Your task to perform on an android device: View the shopping cart on newegg. Add "alienware area 51" to the cart on newegg Image 0: 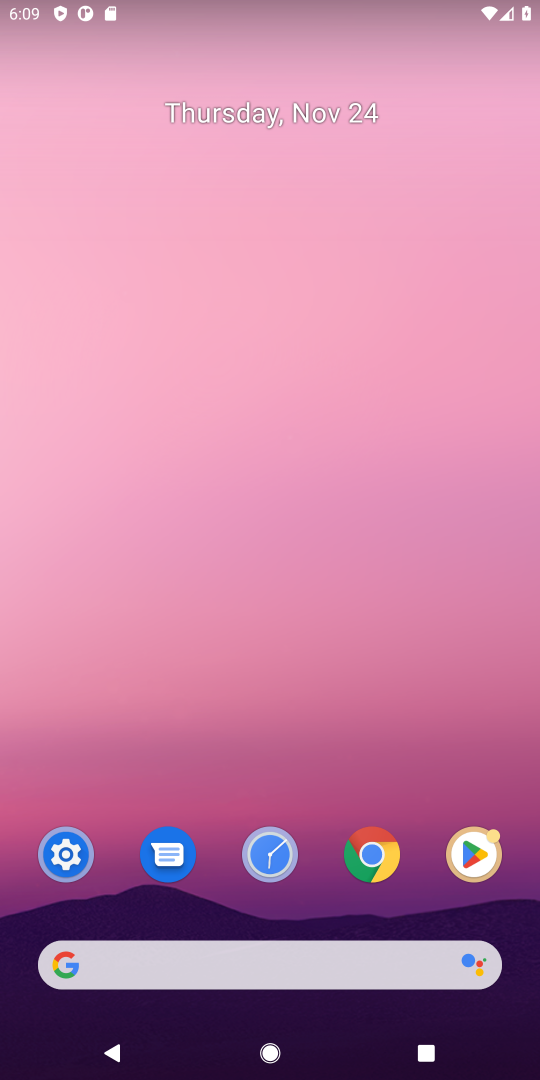
Step 0: click (368, 858)
Your task to perform on an android device: View the shopping cart on newegg. Add "alienware area 51" to the cart on newegg Image 1: 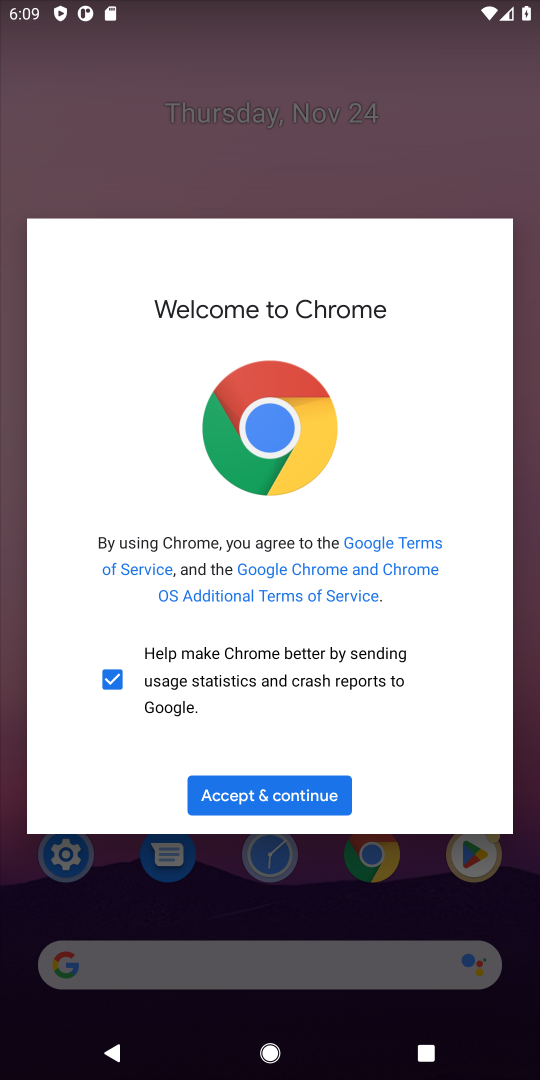
Step 1: click (273, 799)
Your task to perform on an android device: View the shopping cart on newegg. Add "alienware area 51" to the cart on newegg Image 2: 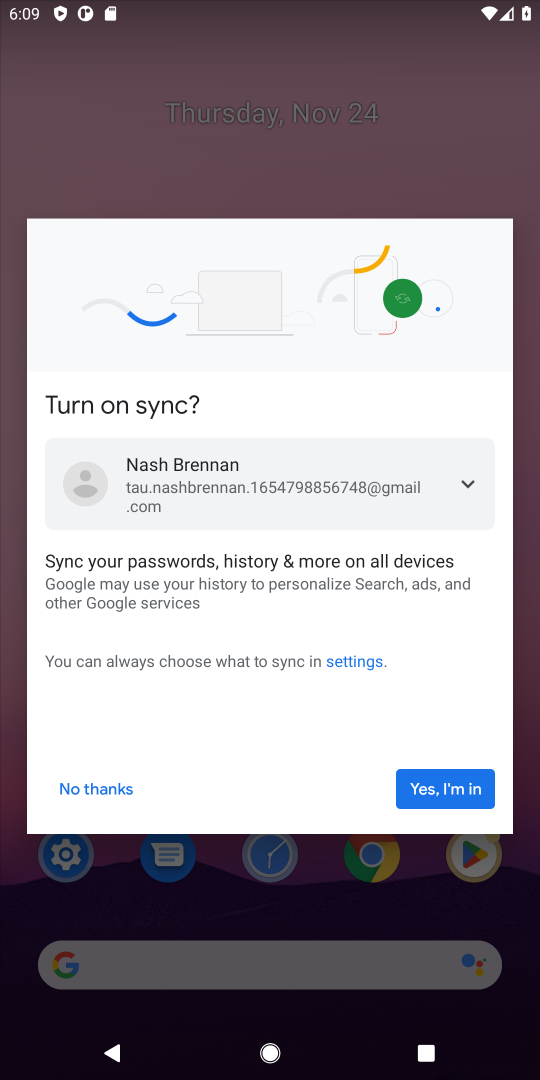
Step 2: click (95, 794)
Your task to perform on an android device: View the shopping cart on newegg. Add "alienware area 51" to the cart on newegg Image 3: 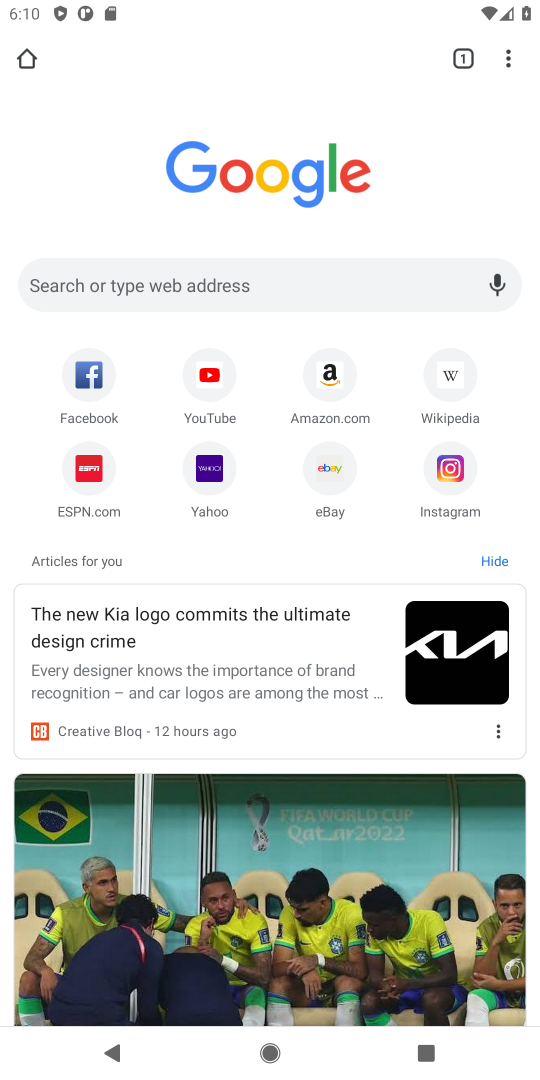
Step 3: click (75, 281)
Your task to perform on an android device: View the shopping cart on newegg. Add "alienware area 51" to the cart on newegg Image 4: 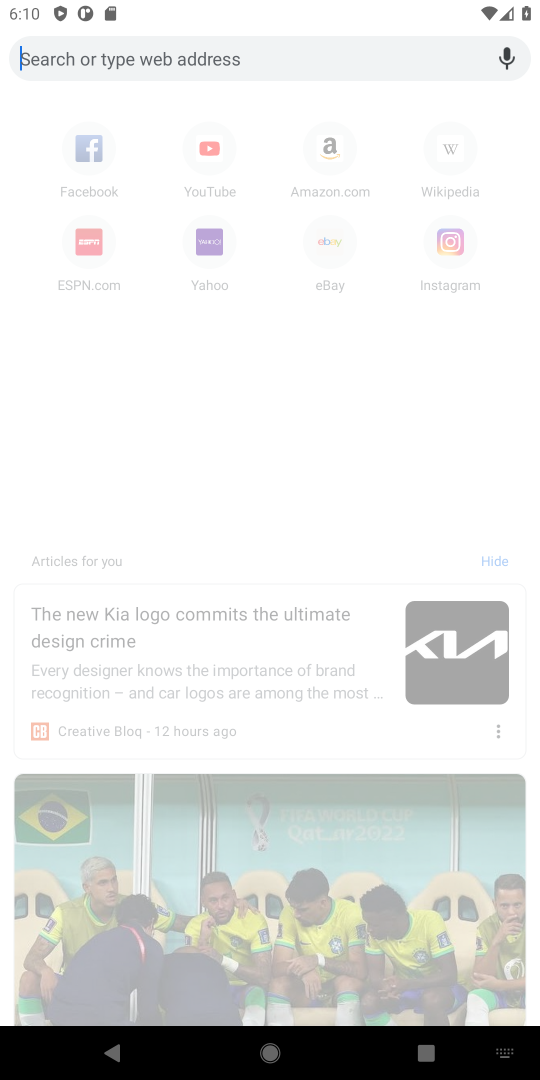
Step 4: type "newegg.com"
Your task to perform on an android device: View the shopping cart on newegg. Add "alienware area 51" to the cart on newegg Image 5: 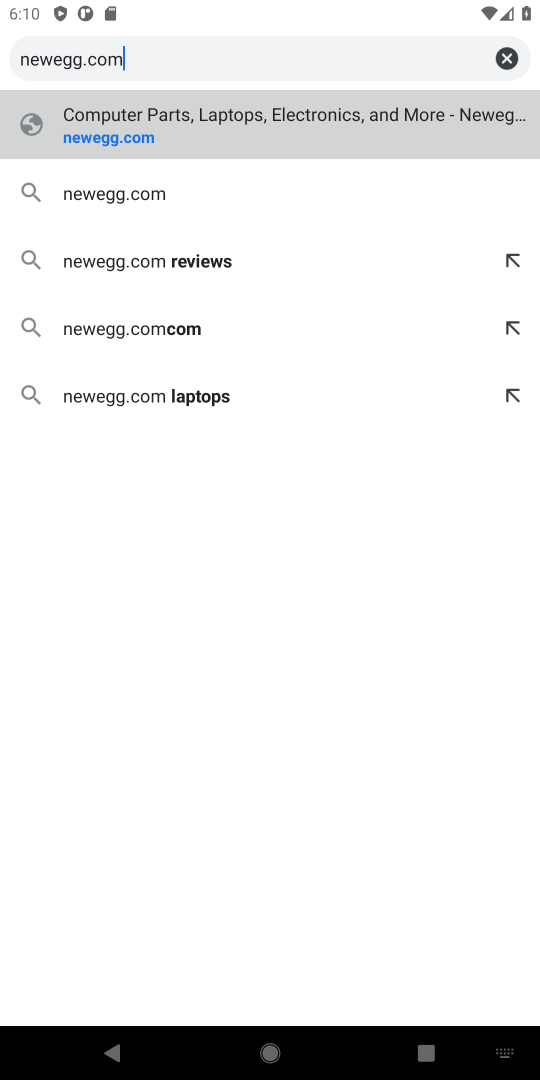
Step 5: click (101, 125)
Your task to perform on an android device: View the shopping cart on newegg. Add "alienware area 51" to the cart on newegg Image 6: 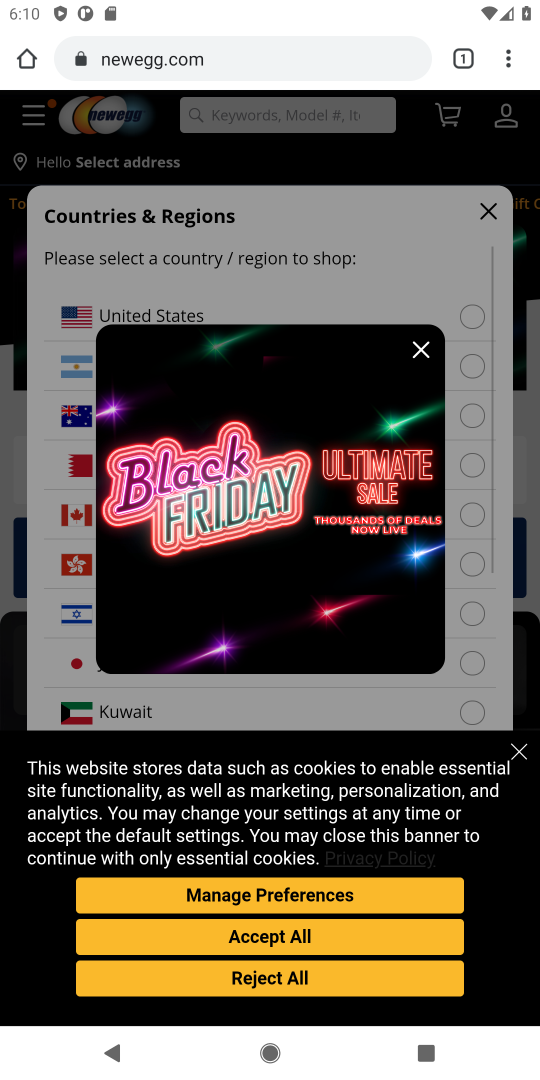
Step 6: click (517, 752)
Your task to perform on an android device: View the shopping cart on newegg. Add "alienware area 51" to the cart on newegg Image 7: 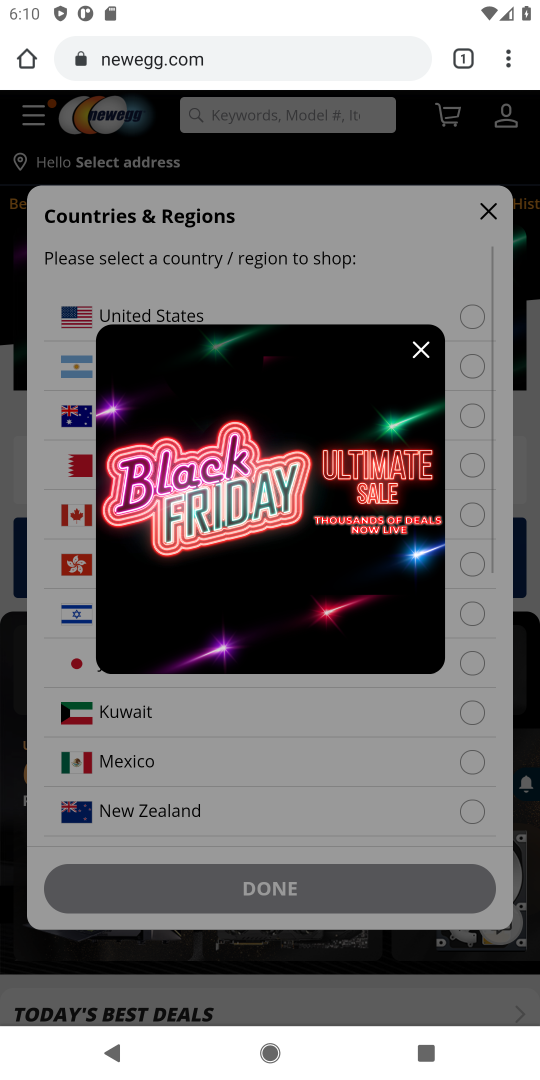
Step 7: click (423, 353)
Your task to perform on an android device: View the shopping cart on newegg. Add "alienware area 51" to the cart on newegg Image 8: 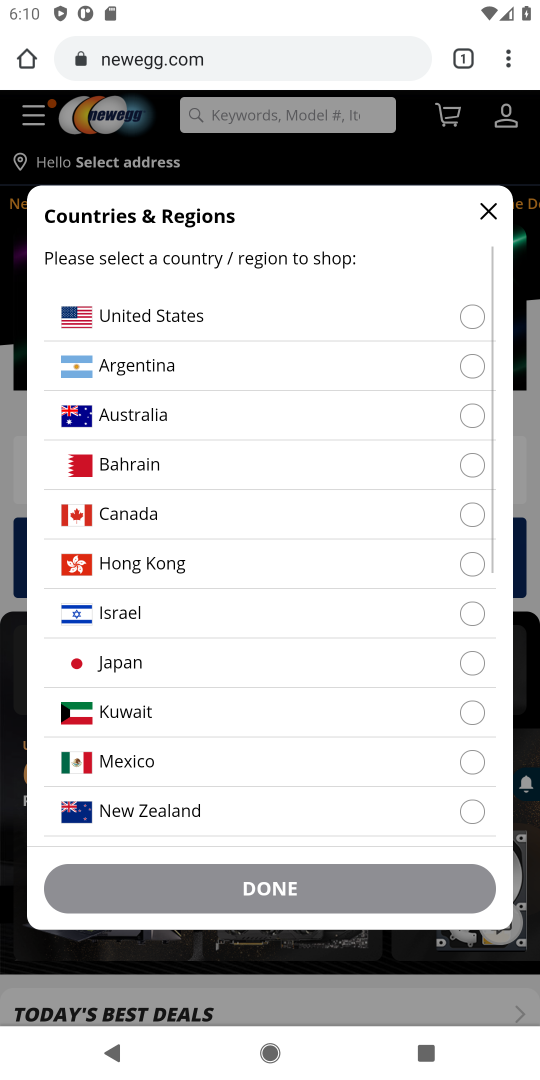
Step 8: click (483, 217)
Your task to perform on an android device: View the shopping cart on newegg. Add "alienware area 51" to the cart on newegg Image 9: 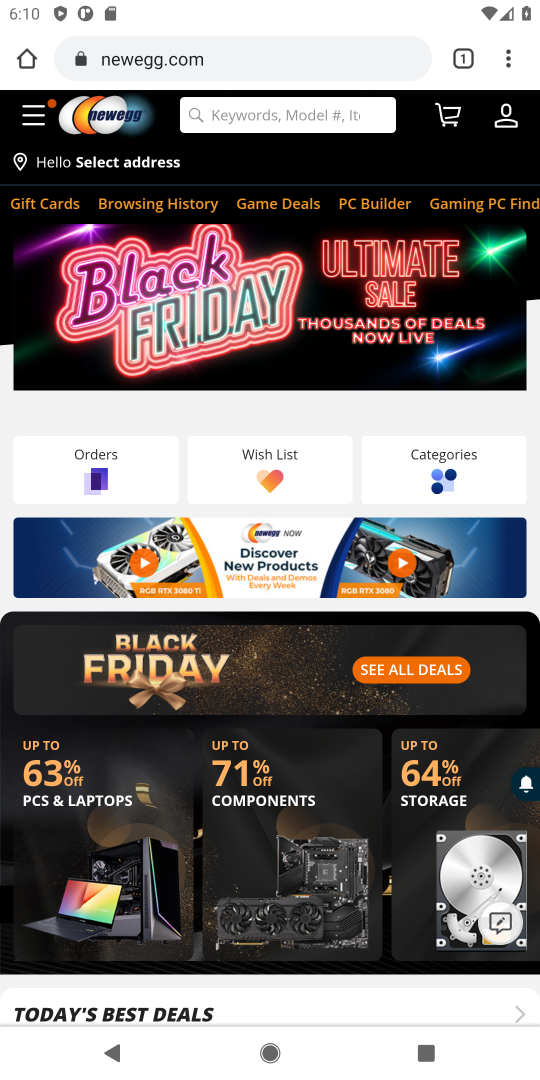
Step 9: click (261, 109)
Your task to perform on an android device: View the shopping cart on newegg. Add "alienware area 51" to the cart on newegg Image 10: 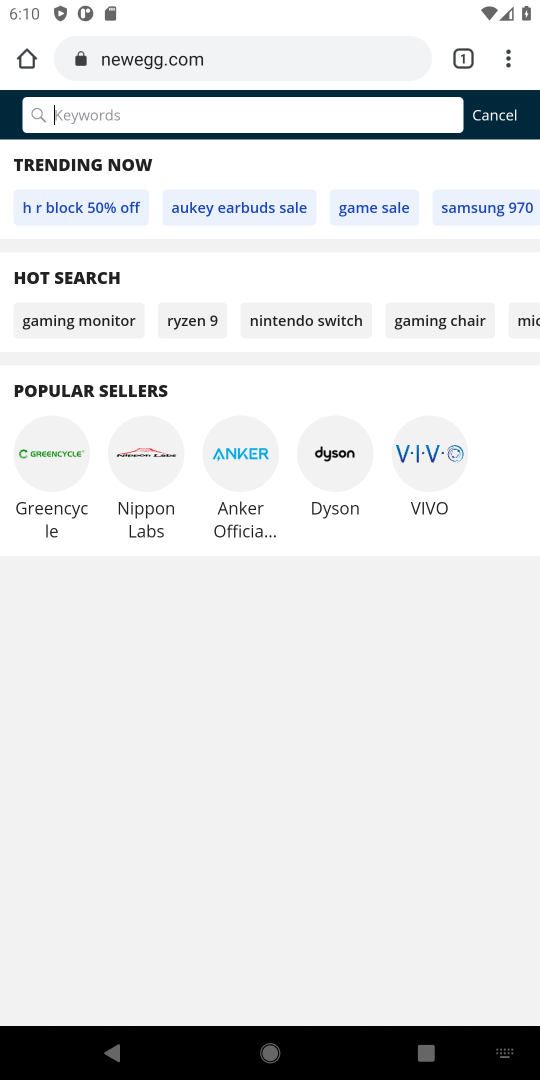
Step 10: click (486, 121)
Your task to perform on an android device: View the shopping cart on newegg. Add "alienware area 51" to the cart on newegg Image 11: 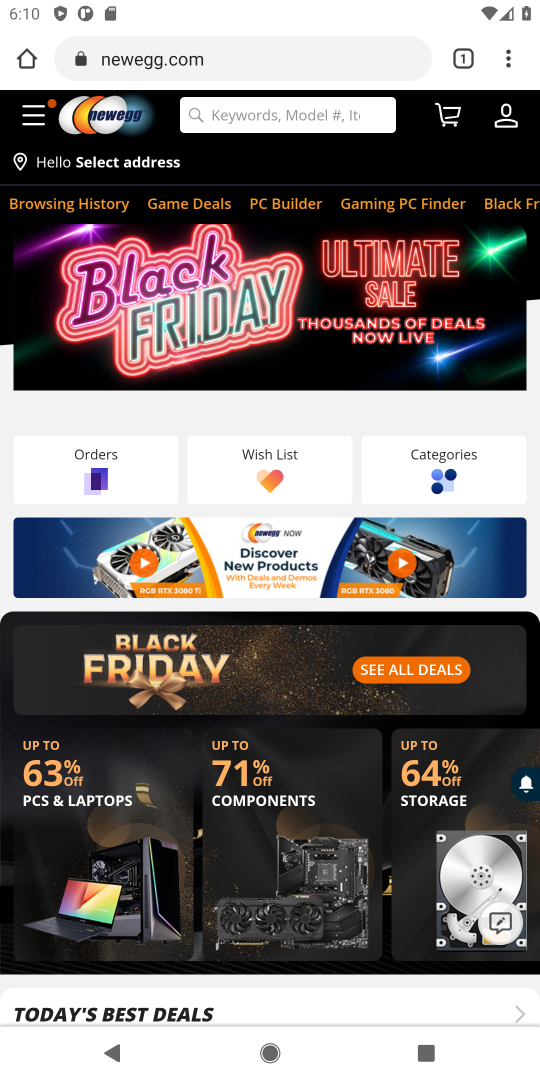
Step 11: click (453, 118)
Your task to perform on an android device: View the shopping cart on newegg. Add "alienware area 51" to the cart on newegg Image 12: 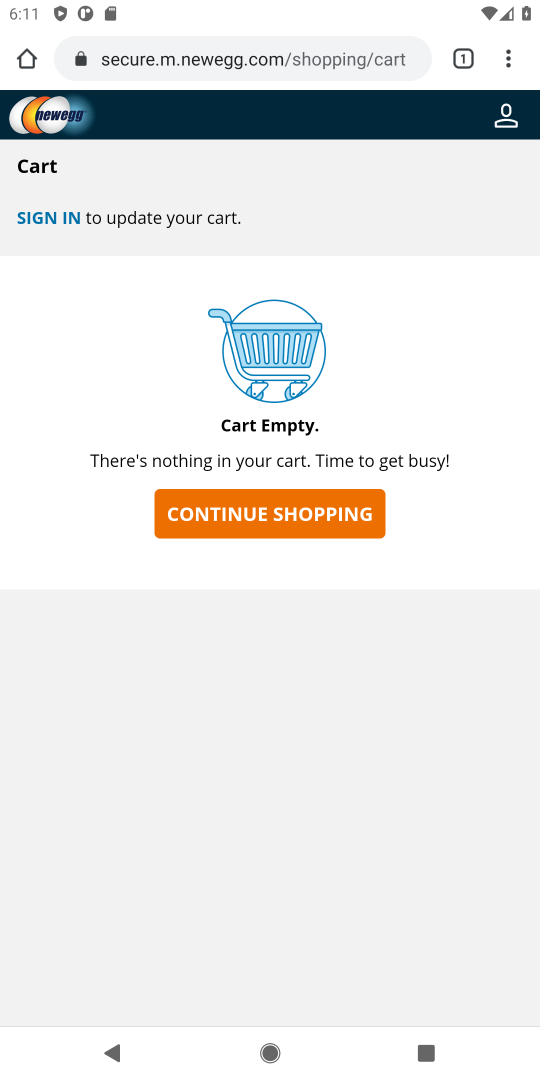
Step 12: click (261, 520)
Your task to perform on an android device: View the shopping cart on newegg. Add "alienware area 51" to the cart on newegg Image 13: 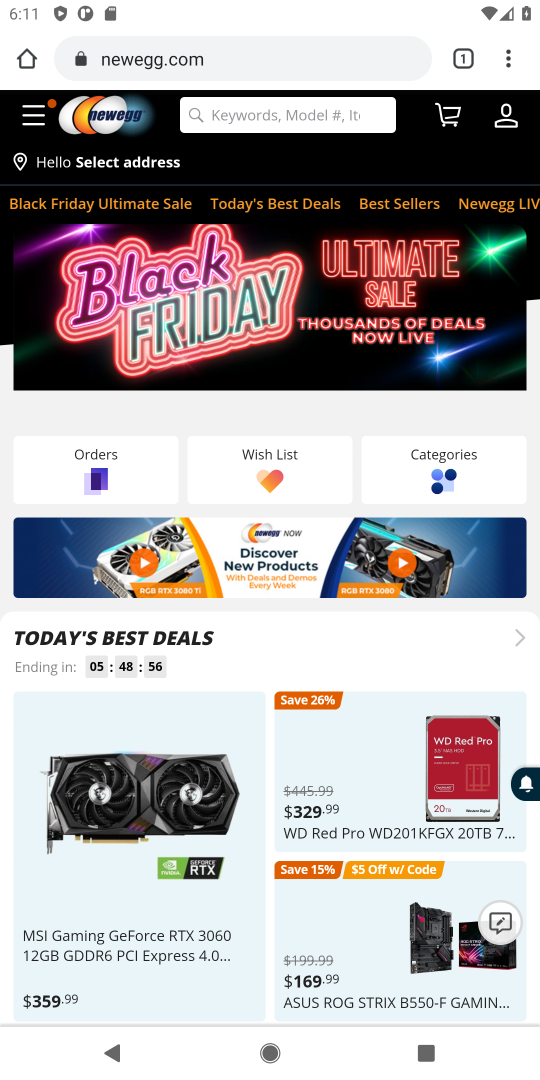
Step 13: click (230, 105)
Your task to perform on an android device: View the shopping cart on newegg. Add "alienware area 51" to the cart on newegg Image 14: 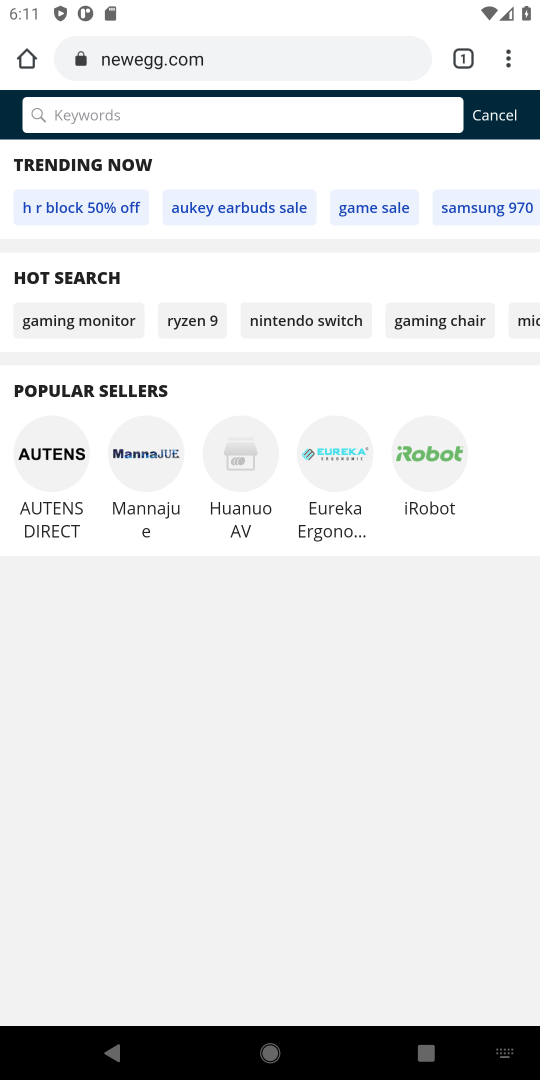
Step 14: type "alienware area 51"
Your task to perform on an android device: View the shopping cart on newegg. Add "alienware area 51" to the cart on newegg Image 15: 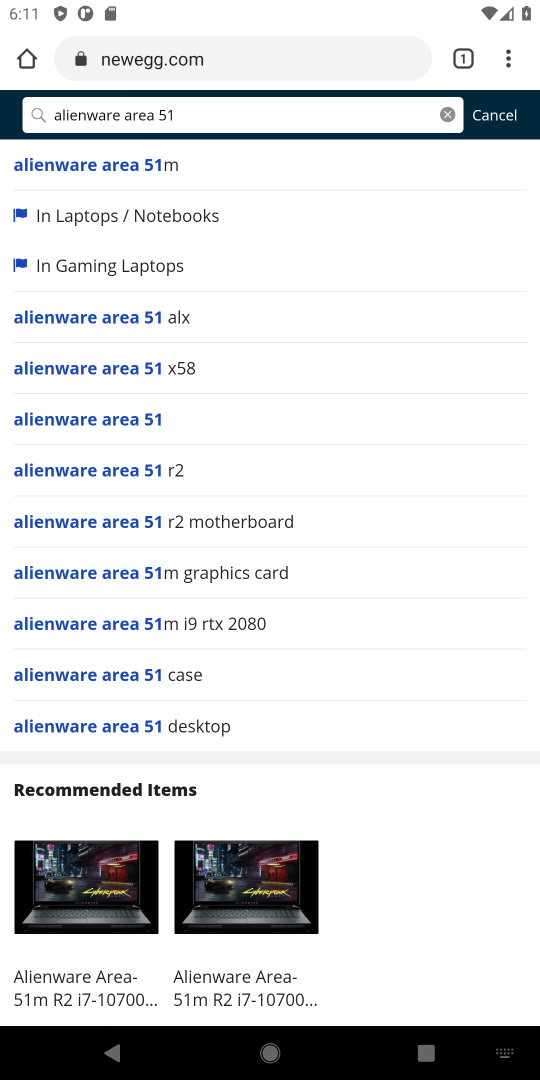
Step 15: click (79, 427)
Your task to perform on an android device: View the shopping cart on newegg. Add "alienware area 51" to the cart on newegg Image 16: 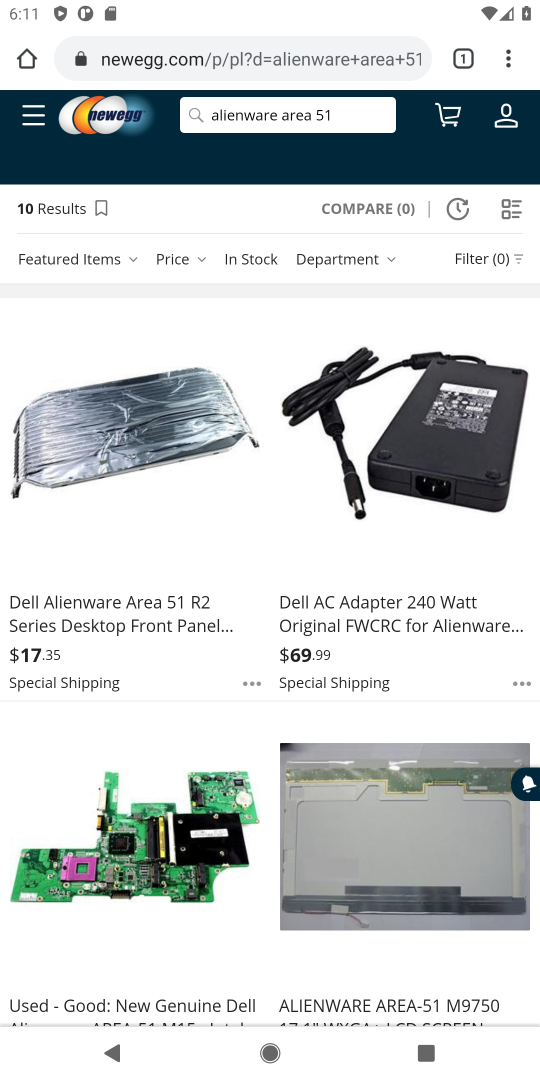
Step 16: click (108, 469)
Your task to perform on an android device: View the shopping cart on newegg. Add "alienware area 51" to the cart on newegg Image 17: 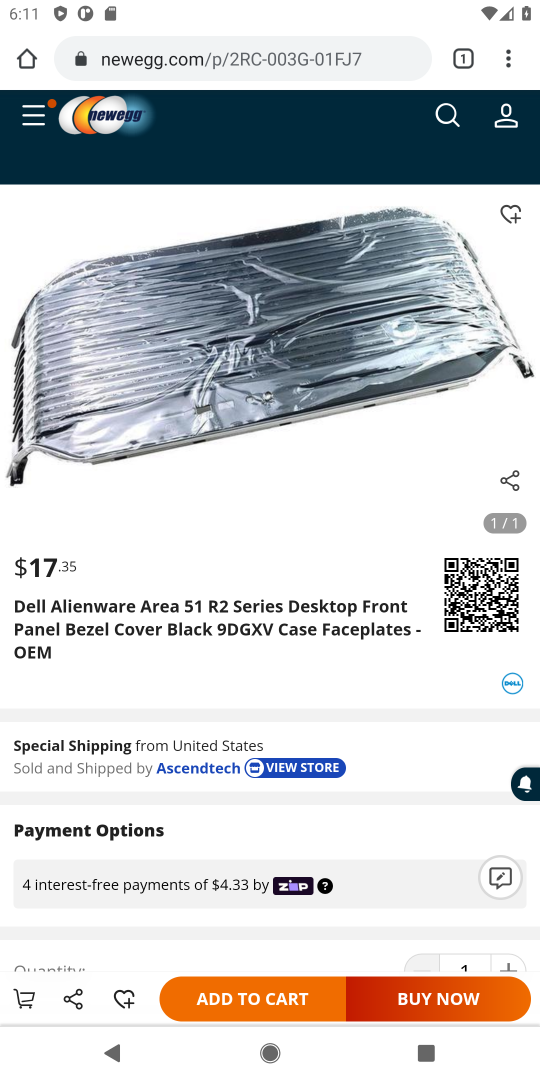
Step 17: click (250, 985)
Your task to perform on an android device: View the shopping cart on newegg. Add "alienware area 51" to the cart on newegg Image 18: 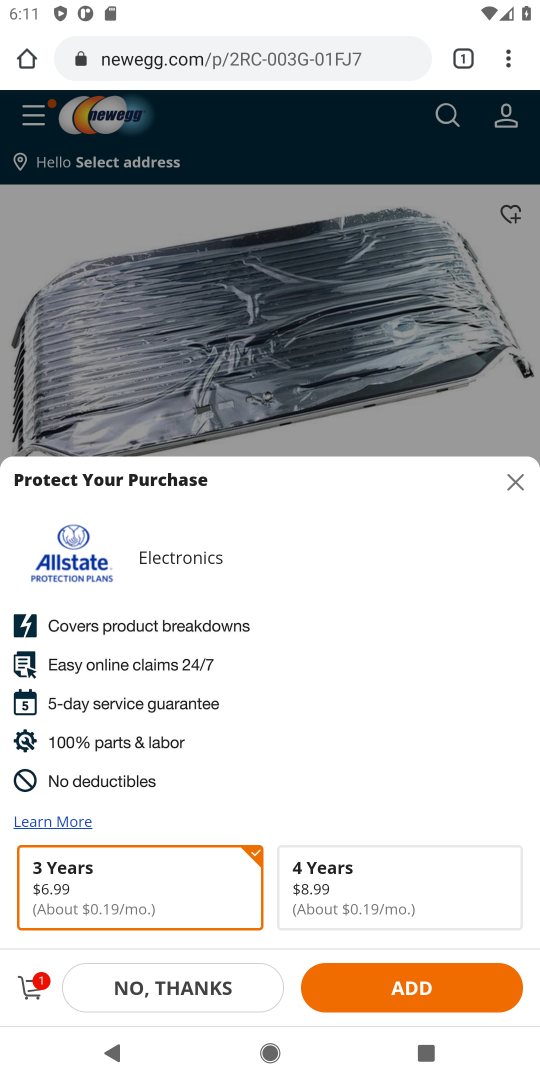
Step 18: task complete